Your task to perform on an android device: Search for the Best selling coffee table on Ikea Image 0: 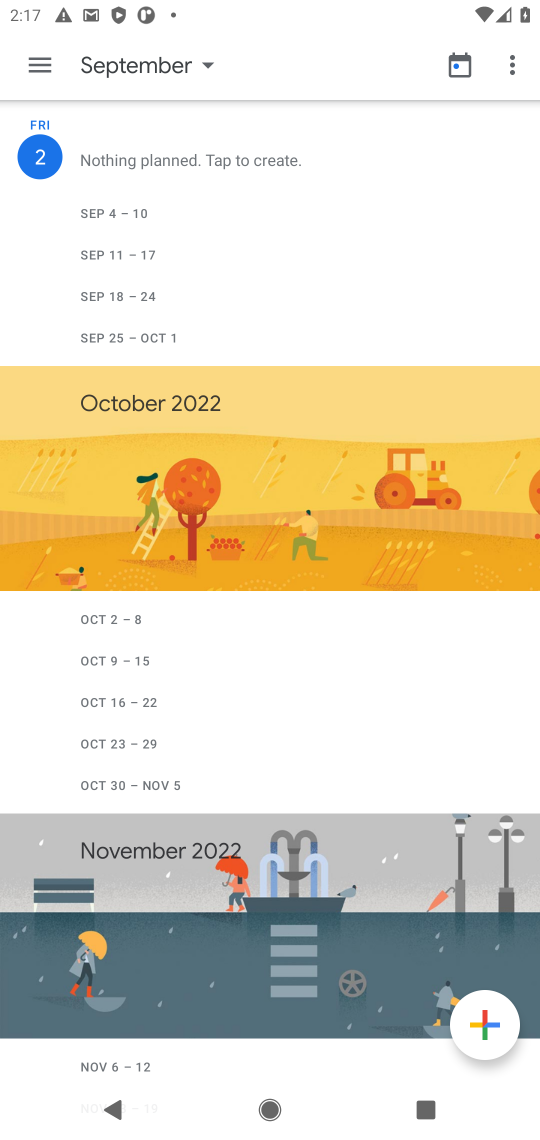
Step 0: press home button
Your task to perform on an android device: Search for the Best selling coffee table on Ikea Image 1: 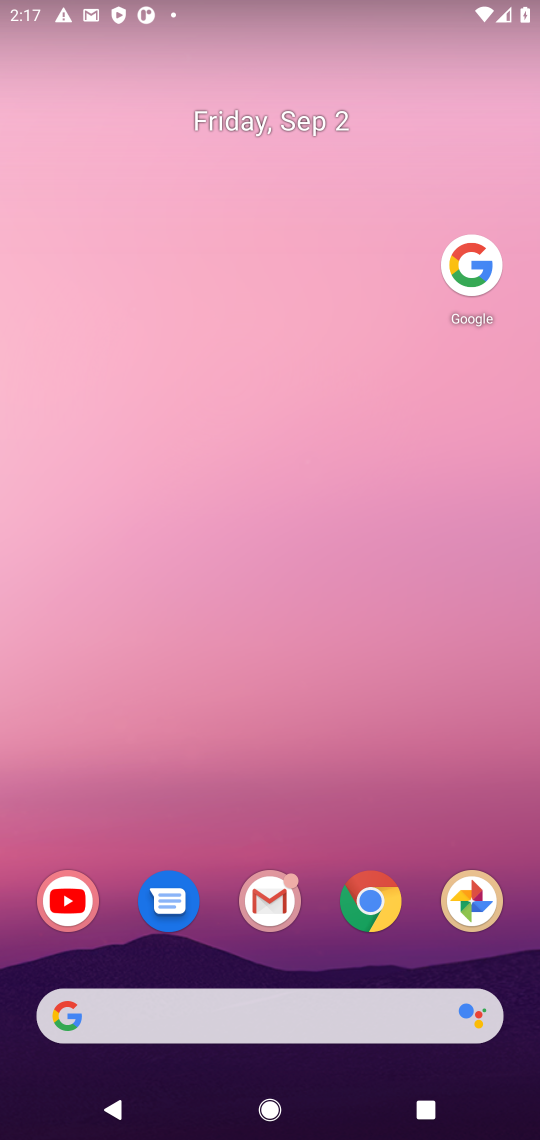
Step 1: click (335, 317)
Your task to perform on an android device: Search for the Best selling coffee table on Ikea Image 2: 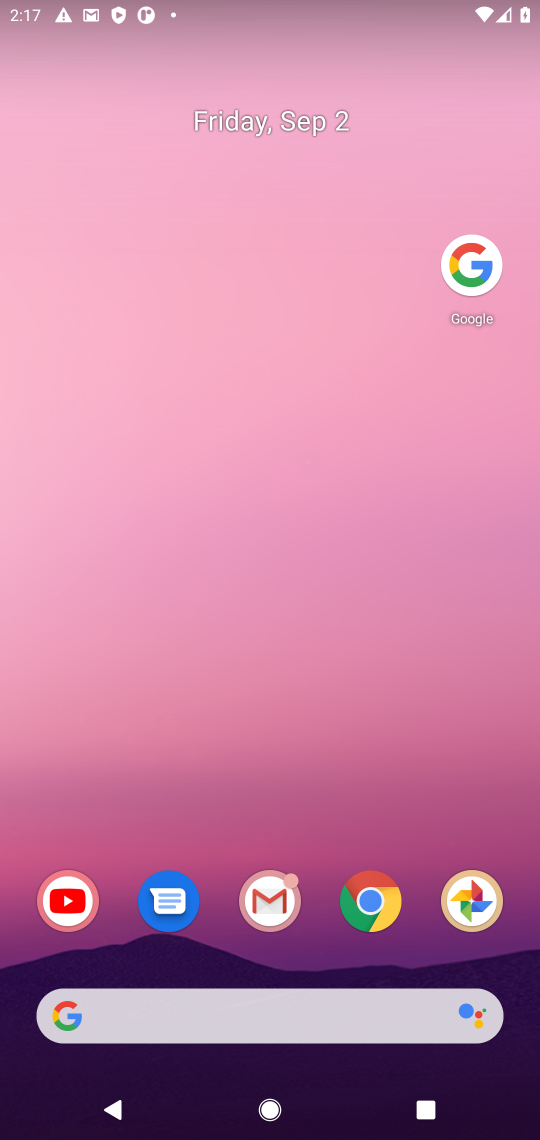
Step 2: click (474, 281)
Your task to perform on an android device: Search for the Best selling coffee table on Ikea Image 3: 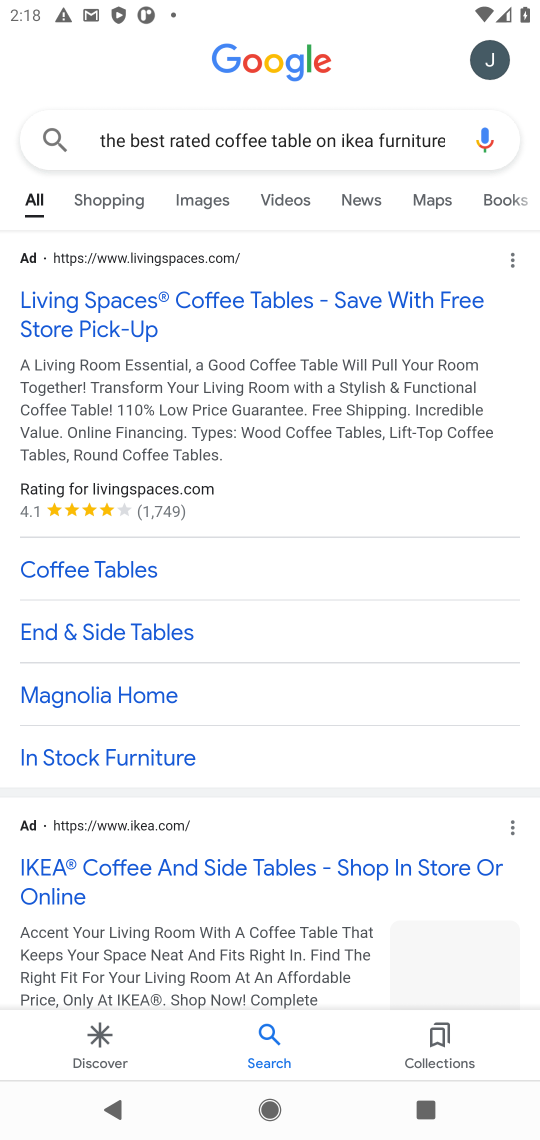
Step 3: click (392, 155)
Your task to perform on an android device: Search for the Best selling coffee table on Ikea Image 4: 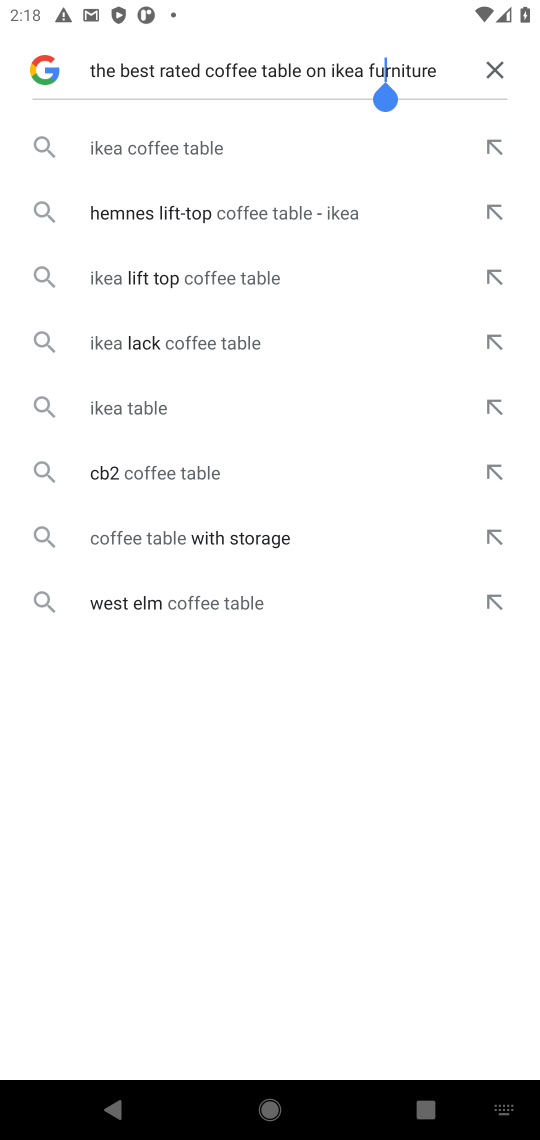
Step 4: click (491, 66)
Your task to perform on an android device: Search for the Best selling coffee table on Ikea Image 5: 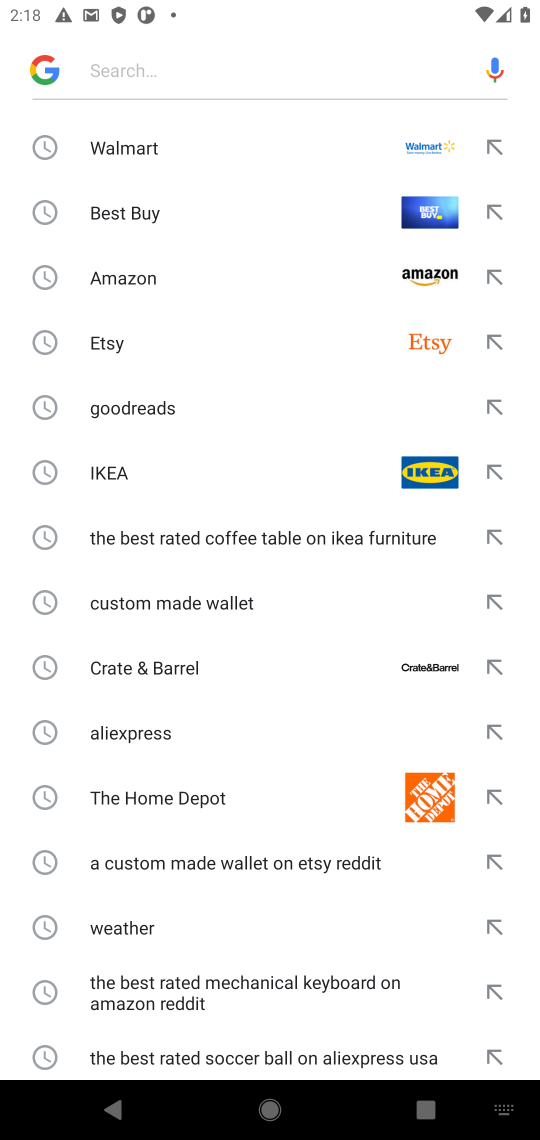
Step 5: click (213, 54)
Your task to perform on an android device: Search for the Best selling coffee table on Ikea Image 6: 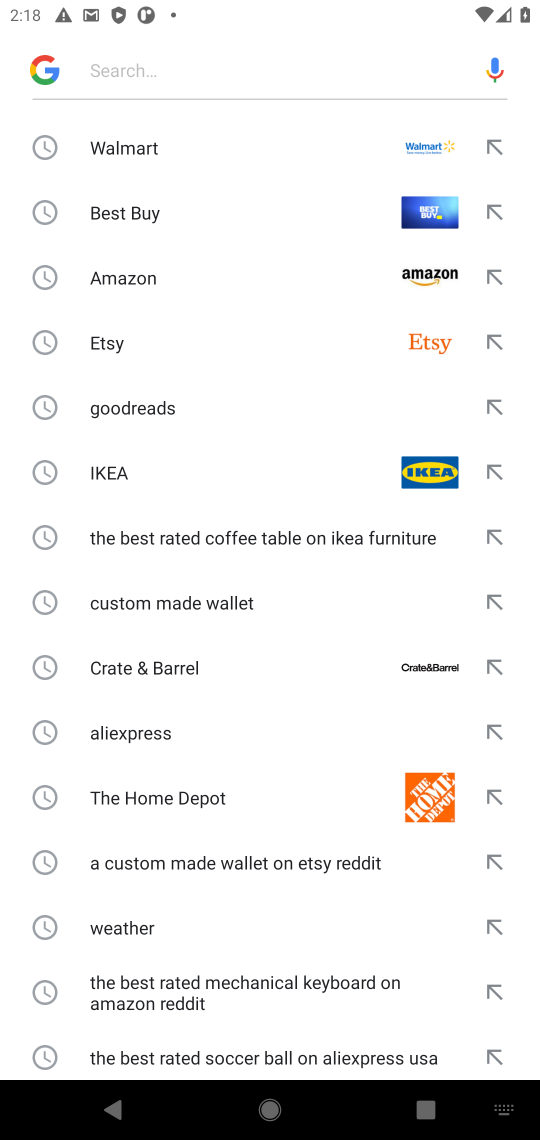
Step 6: type "the Best selling coffee table on Ikea "
Your task to perform on an android device: Search for the Best selling coffee table on Ikea Image 7: 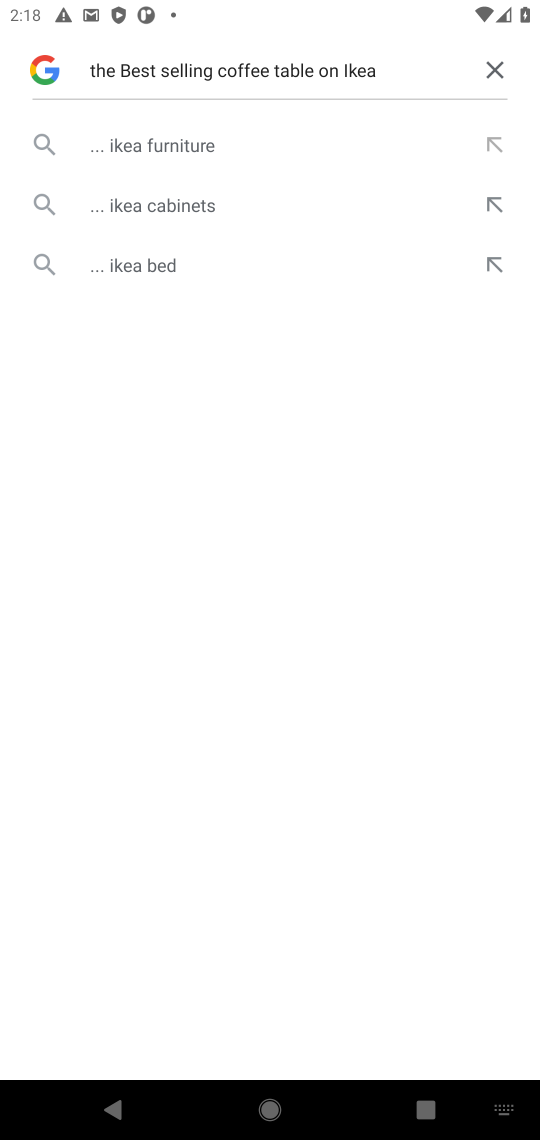
Step 7: click (182, 141)
Your task to perform on an android device: Search for the Best selling coffee table on Ikea Image 8: 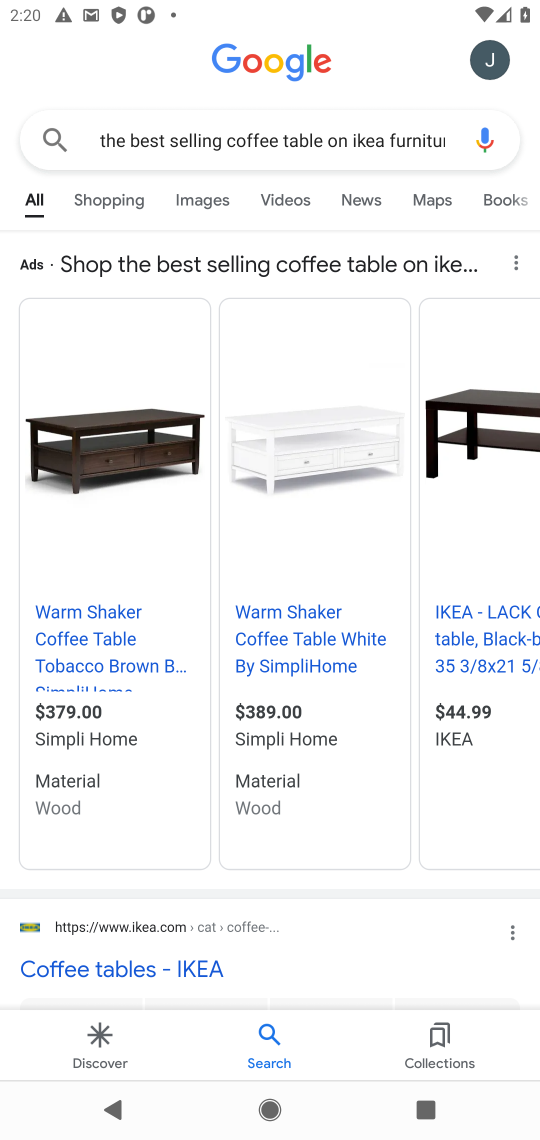
Step 8: task complete